Your task to perform on an android device: What is the news today? Image 0: 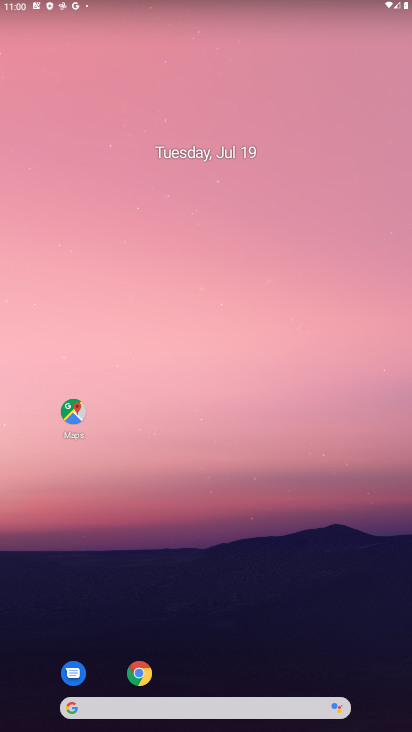
Step 0: click (222, 712)
Your task to perform on an android device: What is the news today? Image 1: 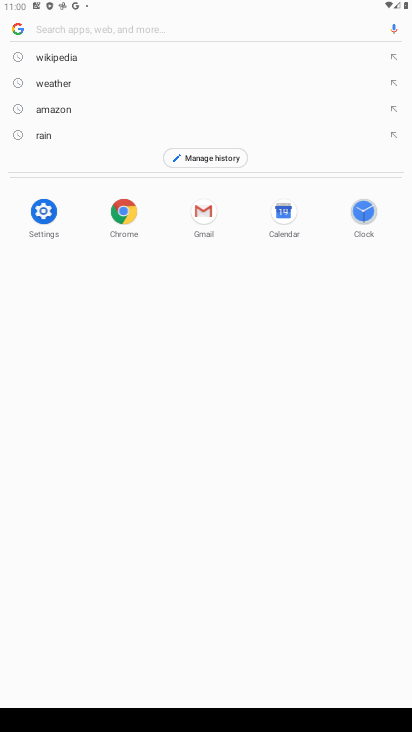
Step 1: type "news"
Your task to perform on an android device: What is the news today? Image 2: 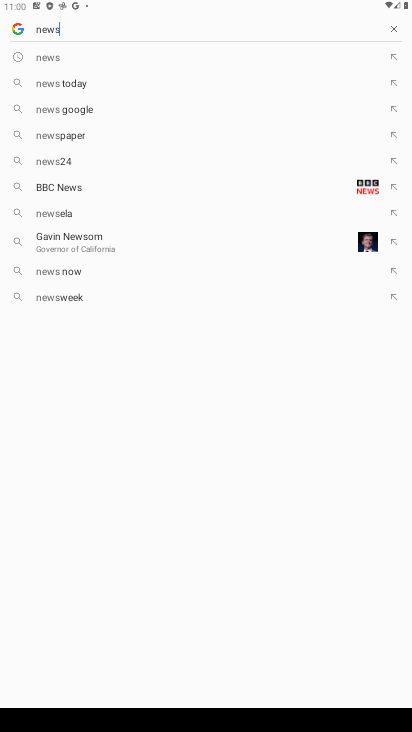
Step 2: click (110, 54)
Your task to perform on an android device: What is the news today? Image 3: 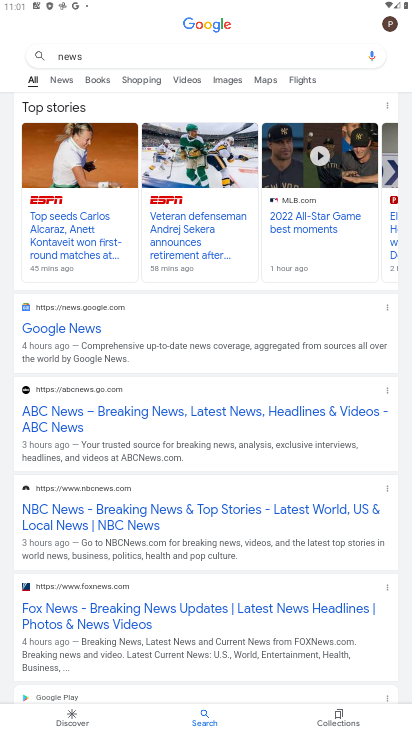
Step 3: task complete